Your task to perform on an android device: Open Youtube and go to "Your channel" Image 0: 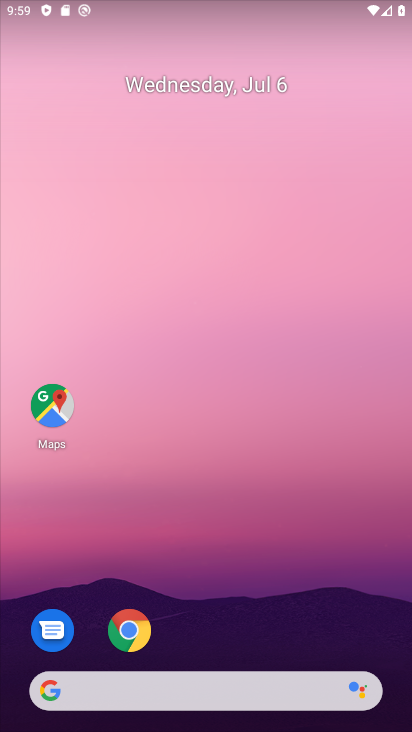
Step 0: drag from (344, 659) to (317, 256)
Your task to perform on an android device: Open Youtube and go to "Your channel" Image 1: 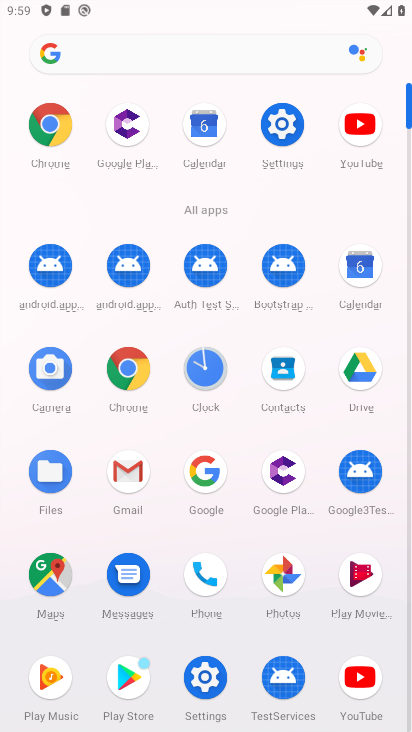
Step 1: click (368, 165)
Your task to perform on an android device: Open Youtube and go to "Your channel" Image 2: 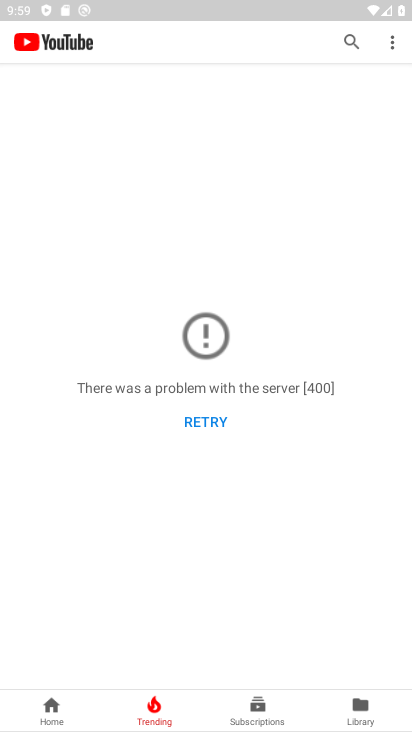
Step 2: click (356, 705)
Your task to perform on an android device: Open Youtube and go to "Your channel" Image 3: 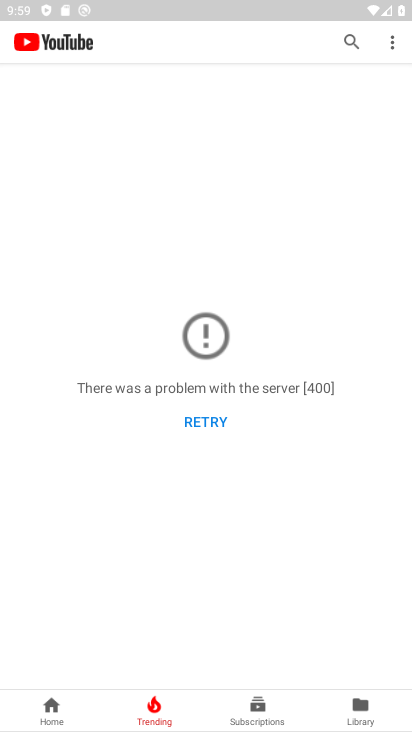
Step 3: click (356, 704)
Your task to perform on an android device: Open Youtube and go to "Your channel" Image 4: 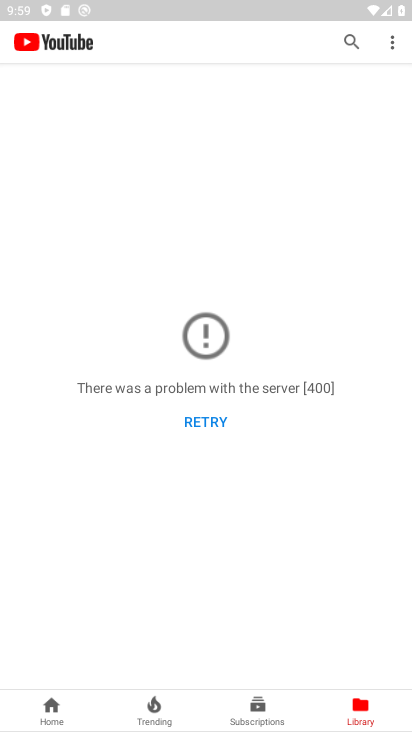
Step 4: click (390, 31)
Your task to perform on an android device: Open Youtube and go to "Your channel" Image 5: 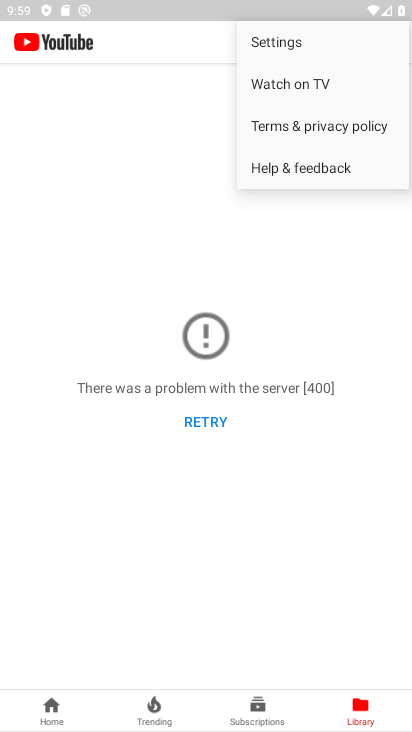
Step 5: click (391, 31)
Your task to perform on an android device: Open Youtube and go to "Your channel" Image 6: 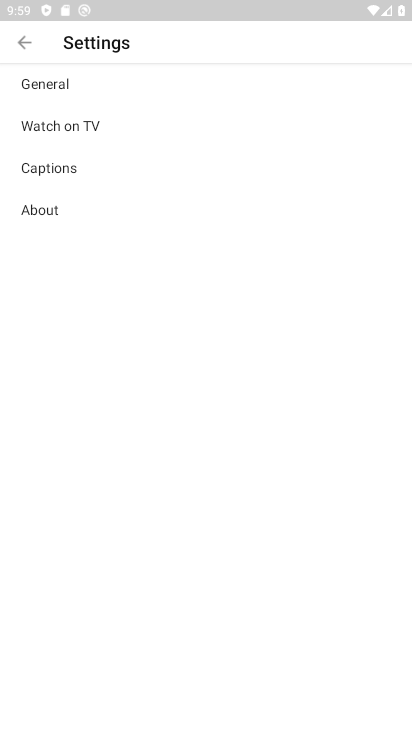
Step 6: task complete